Your task to perform on an android device: change keyboard looks Image 0: 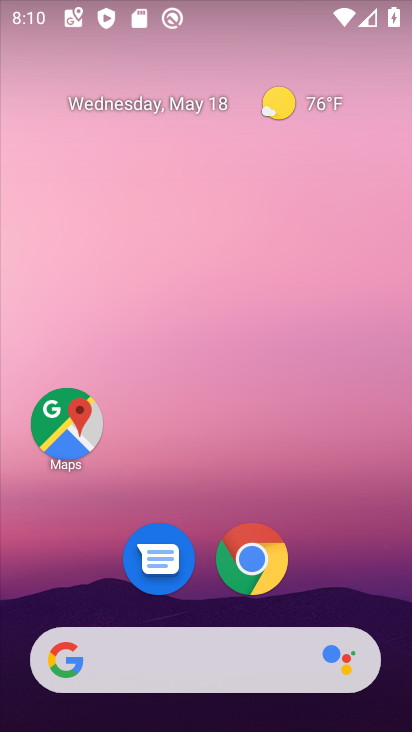
Step 0: drag from (354, 565) to (300, 14)
Your task to perform on an android device: change keyboard looks Image 1: 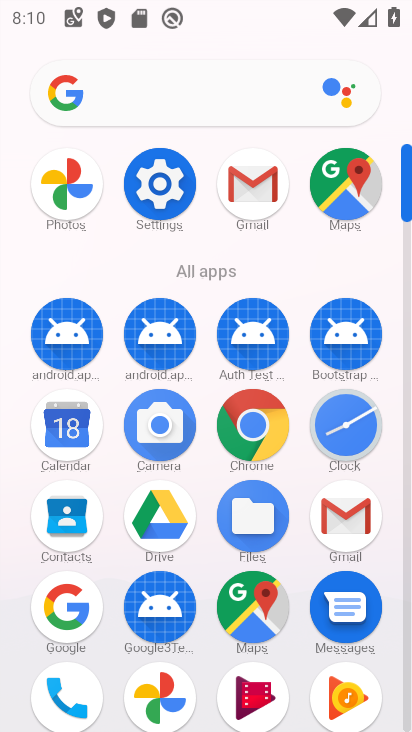
Step 1: click (164, 167)
Your task to perform on an android device: change keyboard looks Image 2: 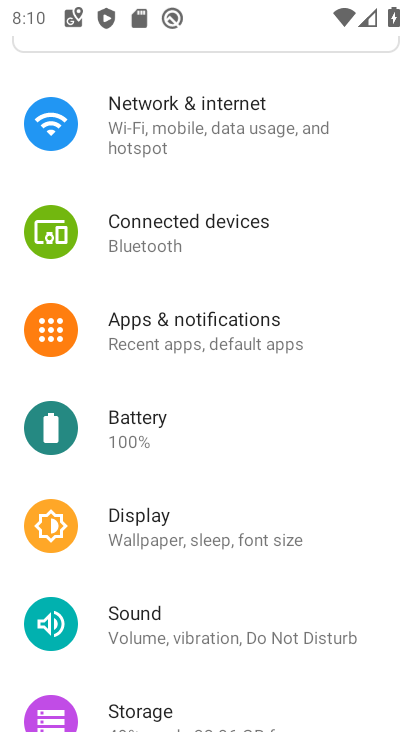
Step 2: drag from (281, 625) to (327, 52)
Your task to perform on an android device: change keyboard looks Image 3: 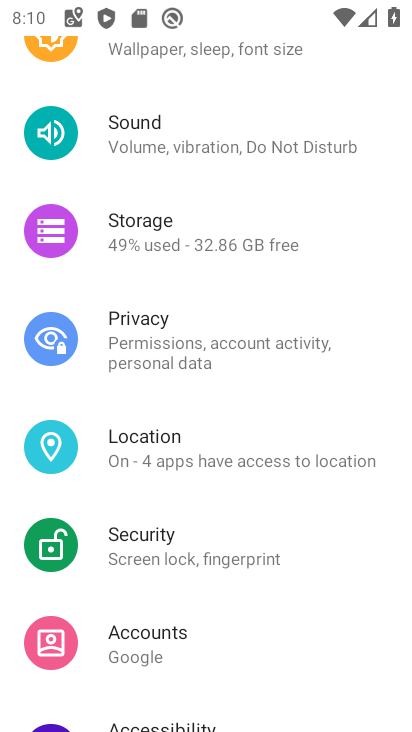
Step 3: drag from (257, 558) to (293, 18)
Your task to perform on an android device: change keyboard looks Image 4: 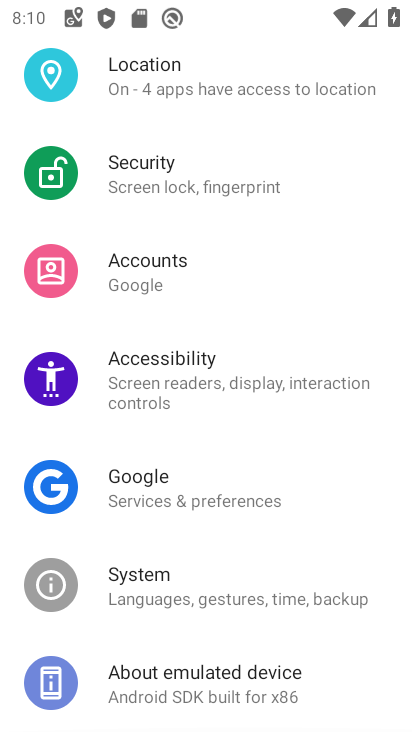
Step 4: click (141, 584)
Your task to perform on an android device: change keyboard looks Image 5: 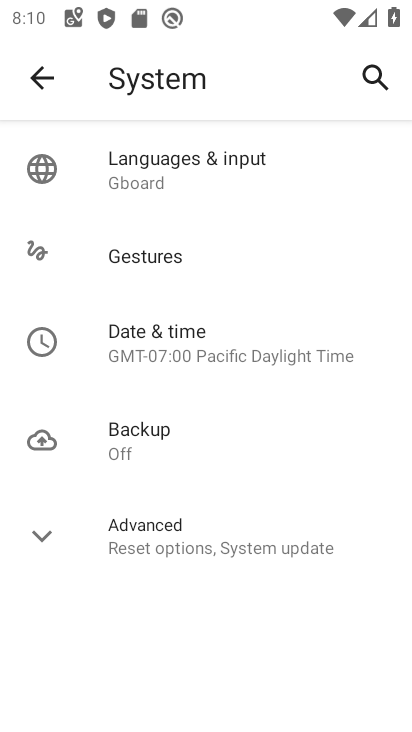
Step 5: click (171, 186)
Your task to perform on an android device: change keyboard looks Image 6: 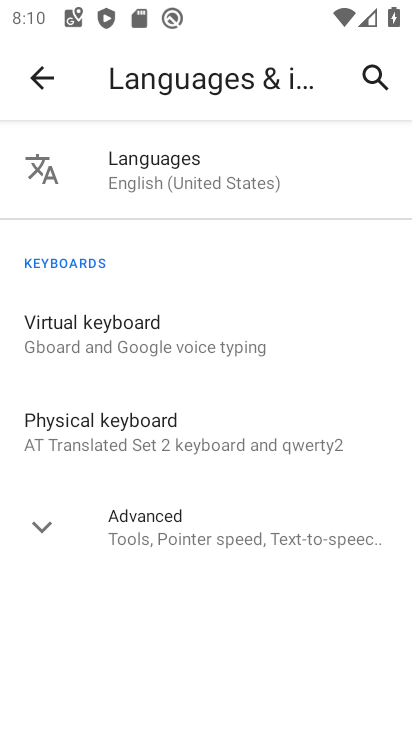
Step 6: click (169, 176)
Your task to perform on an android device: change keyboard looks Image 7: 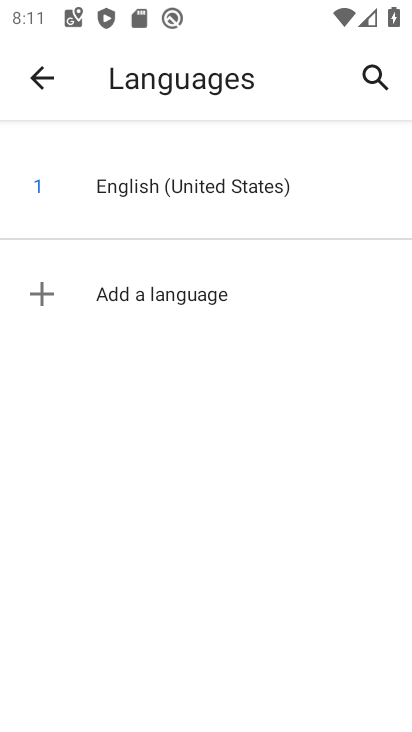
Step 7: press back button
Your task to perform on an android device: change keyboard looks Image 8: 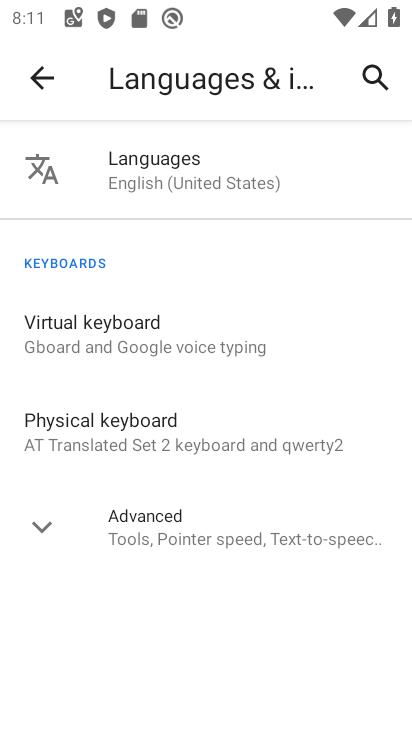
Step 8: click (143, 335)
Your task to perform on an android device: change keyboard looks Image 9: 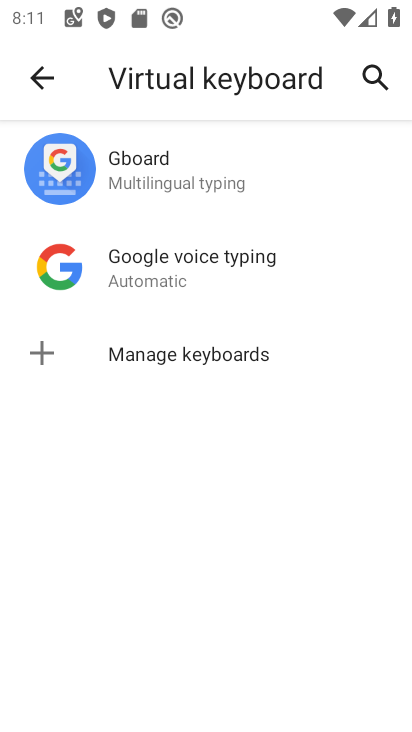
Step 9: click (183, 200)
Your task to perform on an android device: change keyboard looks Image 10: 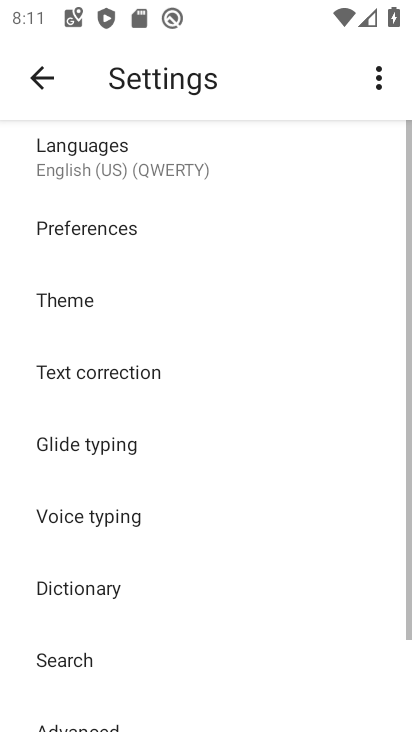
Step 10: click (102, 328)
Your task to perform on an android device: change keyboard looks Image 11: 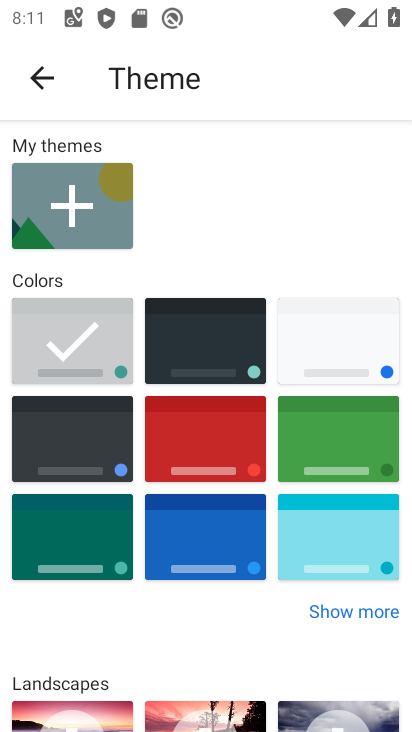
Step 11: click (175, 336)
Your task to perform on an android device: change keyboard looks Image 12: 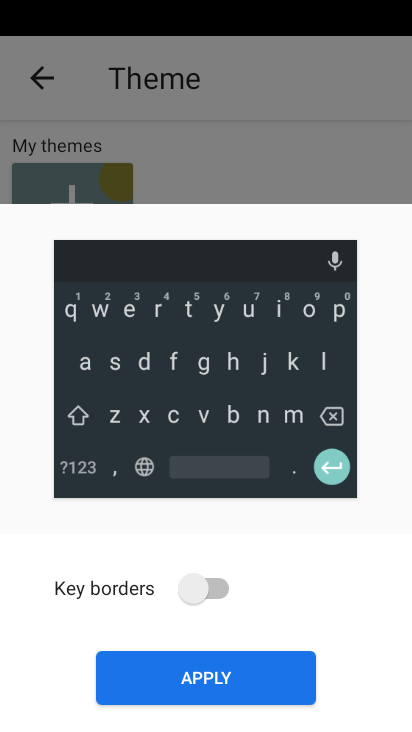
Step 12: click (205, 706)
Your task to perform on an android device: change keyboard looks Image 13: 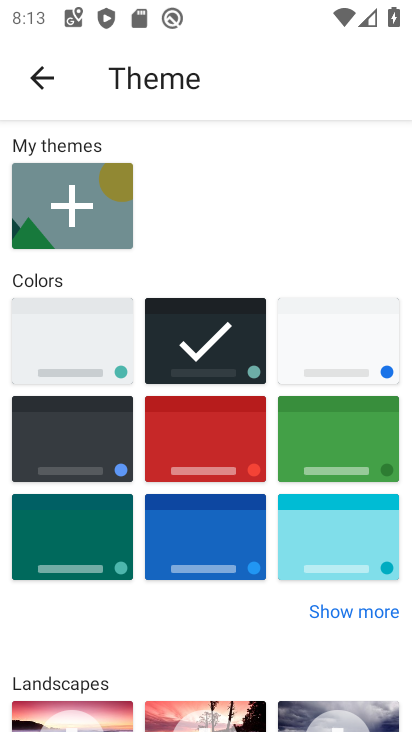
Step 13: task complete